Your task to perform on an android device: What is the recent news? Image 0: 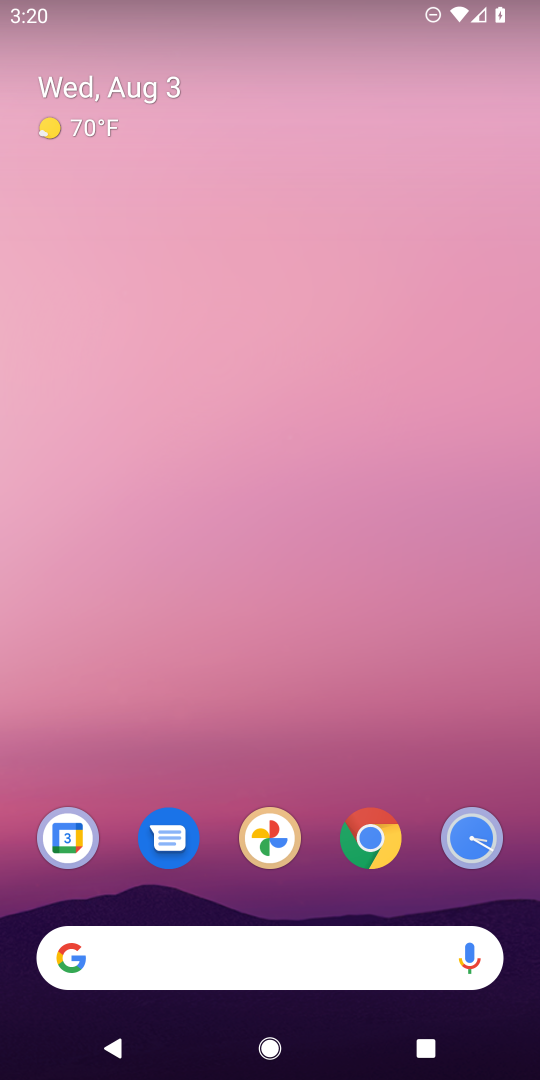
Step 0: click (289, 948)
Your task to perform on an android device: What is the recent news? Image 1: 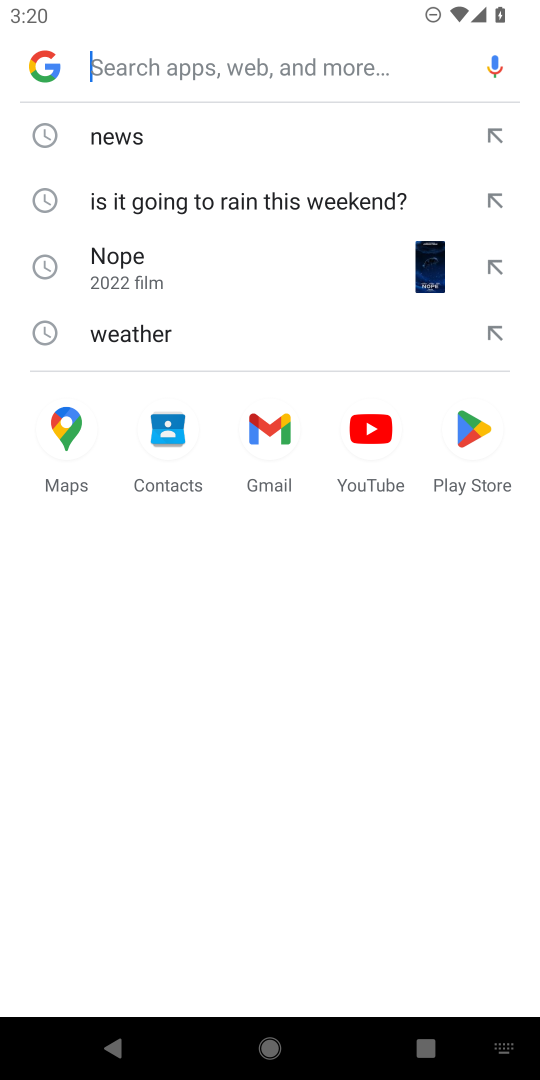
Step 1: type "what is the recent news?"
Your task to perform on an android device: What is the recent news? Image 2: 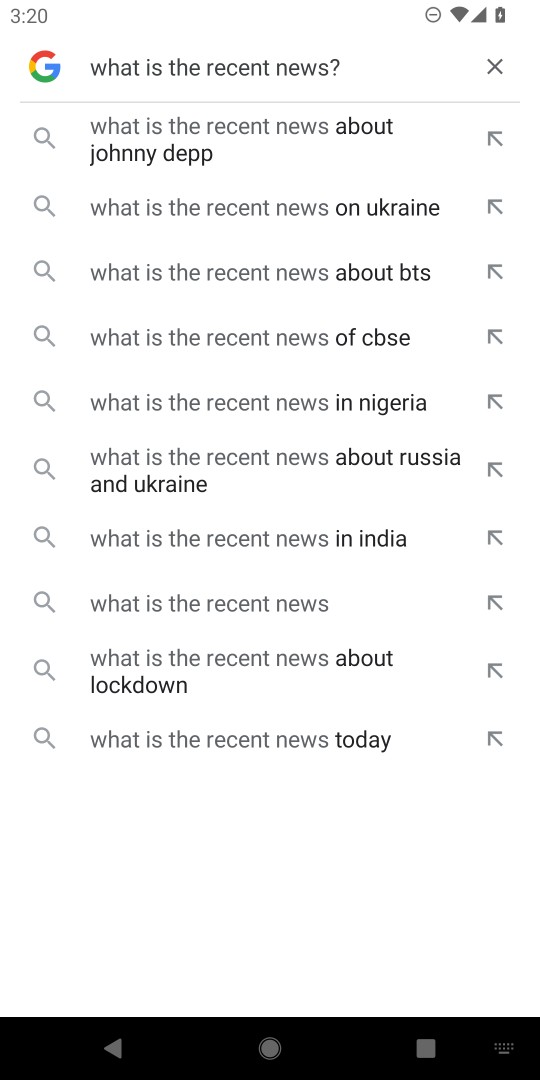
Step 2: click (278, 598)
Your task to perform on an android device: What is the recent news? Image 3: 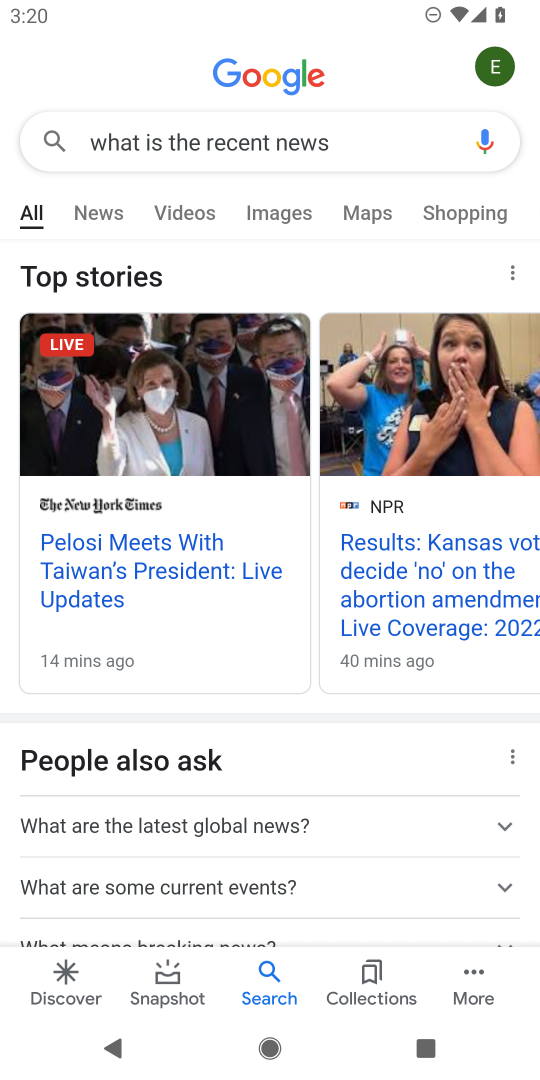
Step 3: click (115, 219)
Your task to perform on an android device: What is the recent news? Image 4: 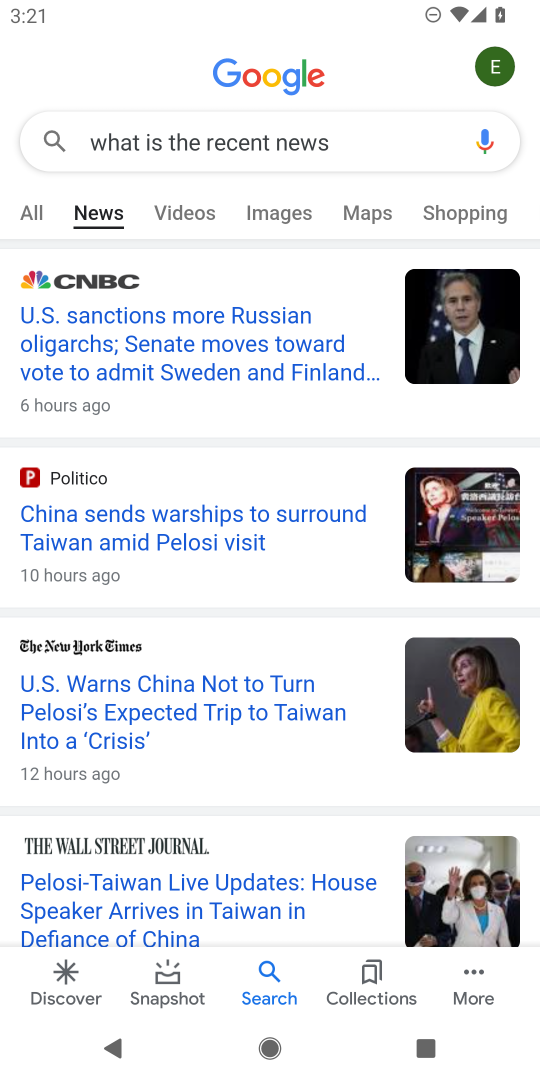
Step 4: task complete